Your task to perform on an android device: open app "Speedtest by Ookla" (install if not already installed), go to login, and select forgot password Image 0: 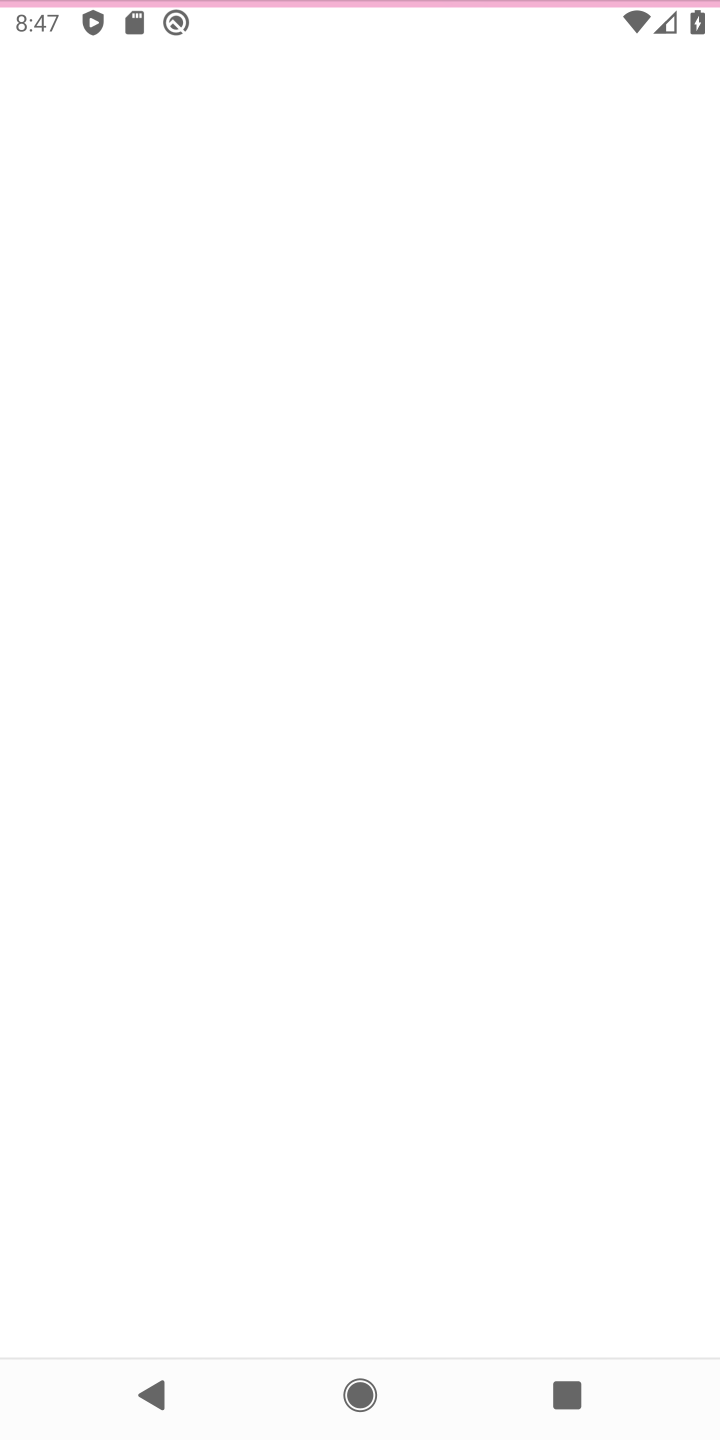
Step 0: press home button
Your task to perform on an android device: open app "Speedtest by Ookla" (install if not already installed), go to login, and select forgot password Image 1: 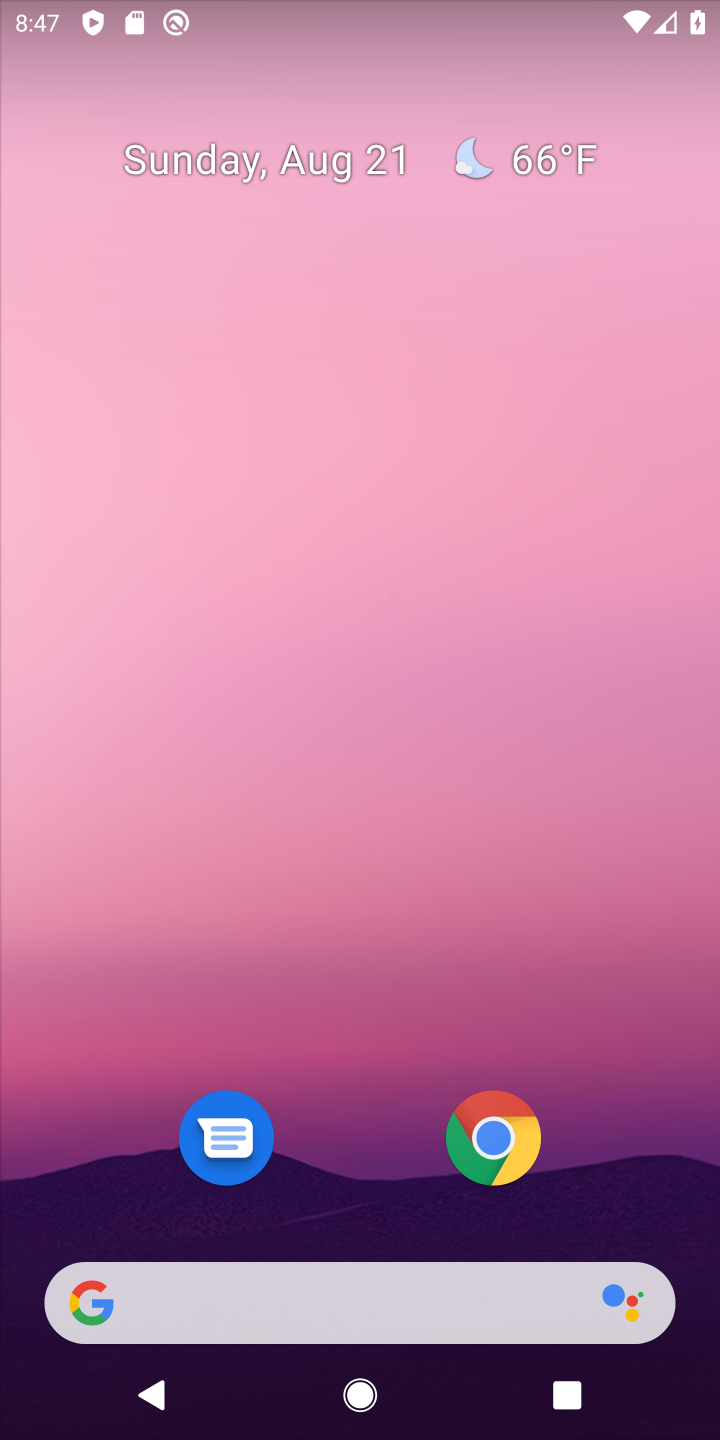
Step 1: drag from (591, 1187) to (611, 138)
Your task to perform on an android device: open app "Speedtest by Ookla" (install if not already installed), go to login, and select forgot password Image 2: 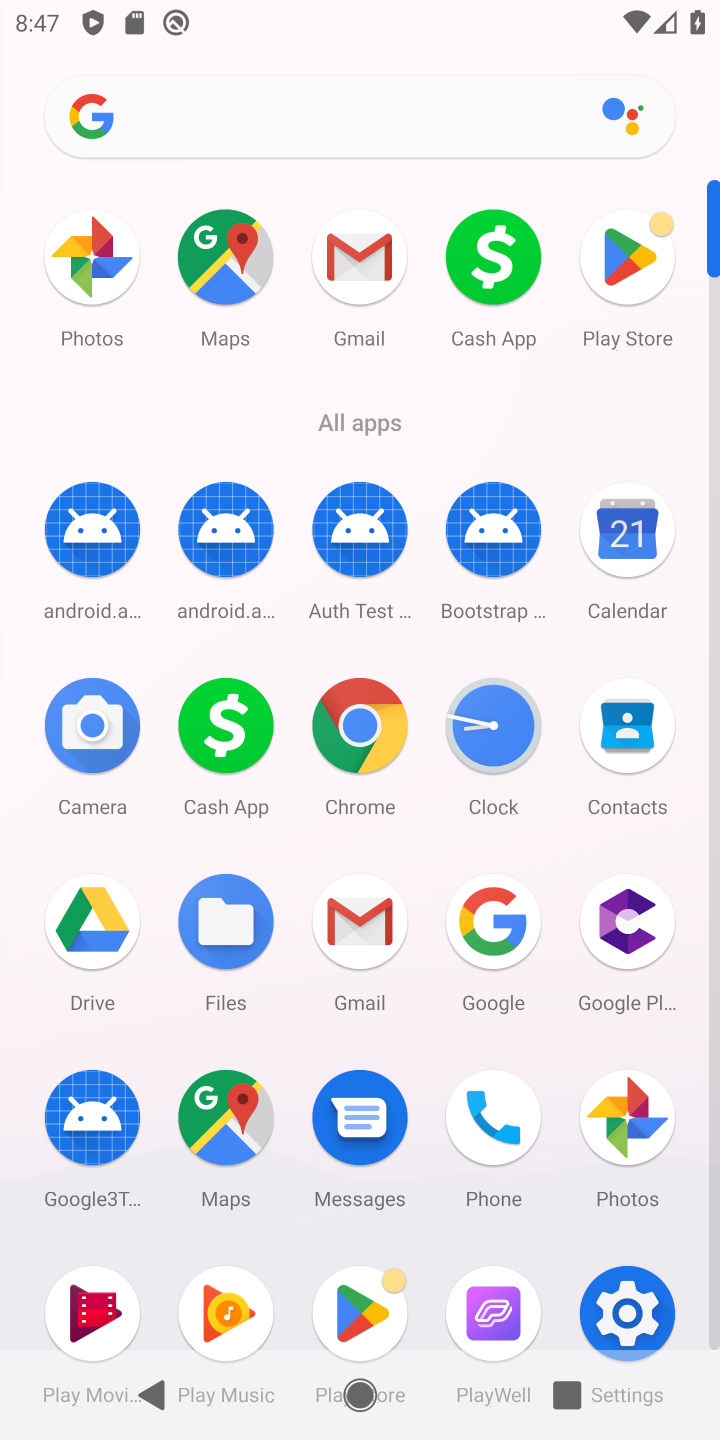
Step 2: click (628, 264)
Your task to perform on an android device: open app "Speedtest by Ookla" (install if not already installed), go to login, and select forgot password Image 3: 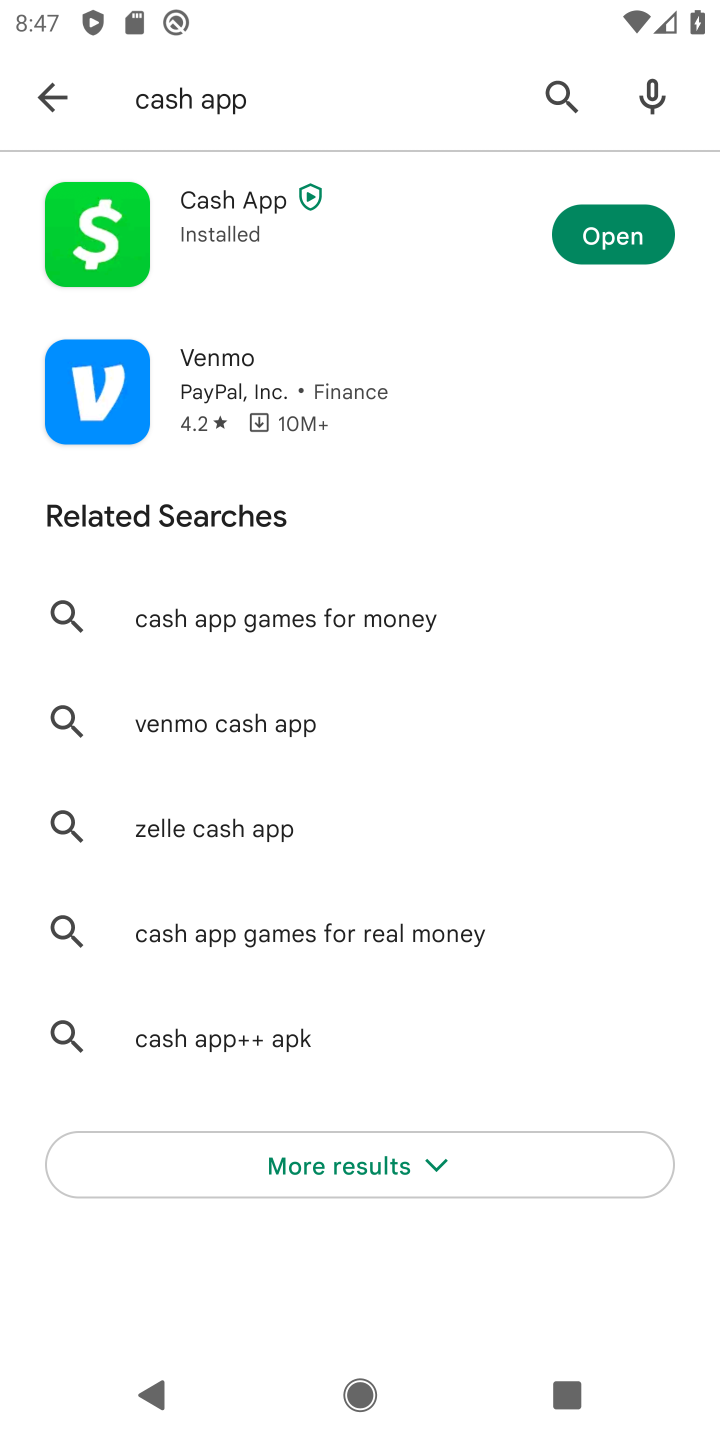
Step 3: press back button
Your task to perform on an android device: open app "Speedtest by Ookla" (install if not already installed), go to login, and select forgot password Image 4: 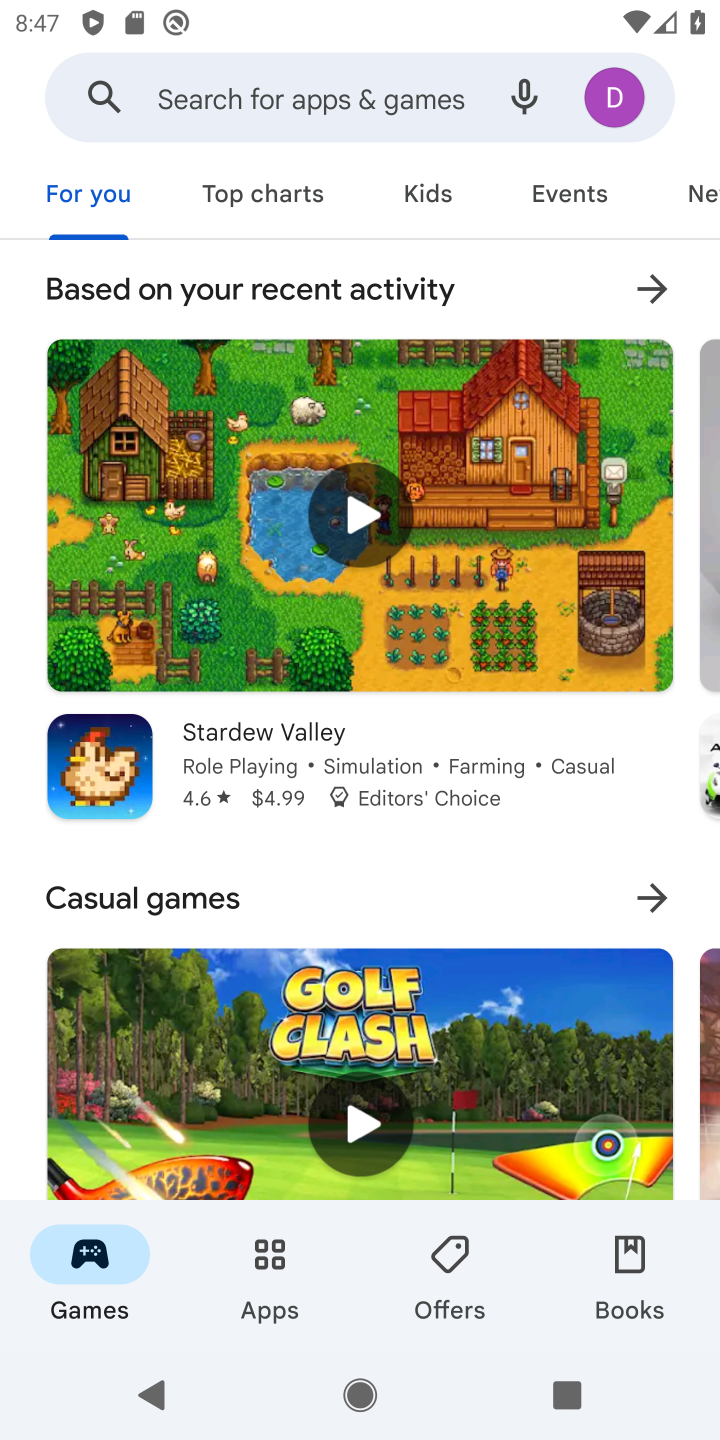
Step 4: click (286, 88)
Your task to perform on an android device: open app "Speedtest by Ookla" (install if not already installed), go to login, and select forgot password Image 5: 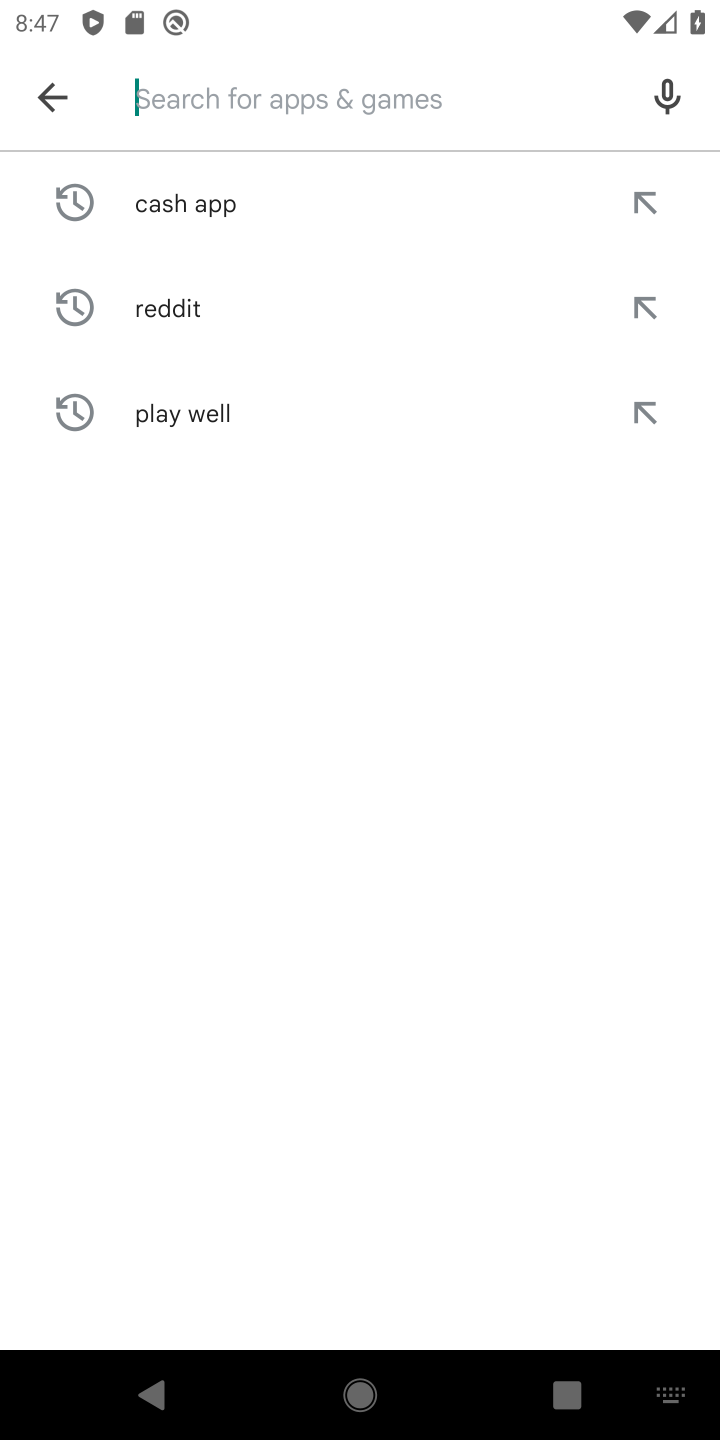
Step 5: press enter
Your task to perform on an android device: open app "Speedtest by Ookla" (install if not already installed), go to login, and select forgot password Image 6: 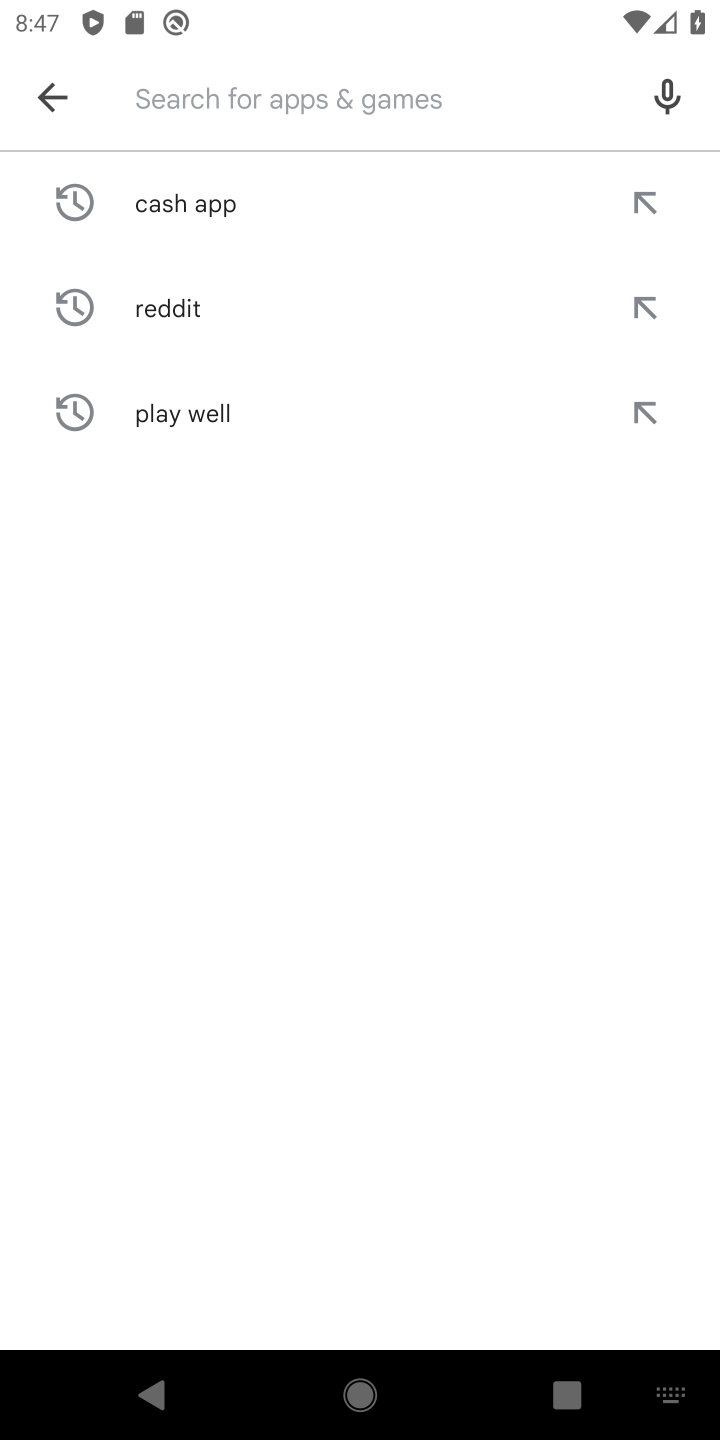
Step 6: type "Speedtest by Ookla"
Your task to perform on an android device: open app "Speedtest by Ookla" (install if not already installed), go to login, and select forgot password Image 7: 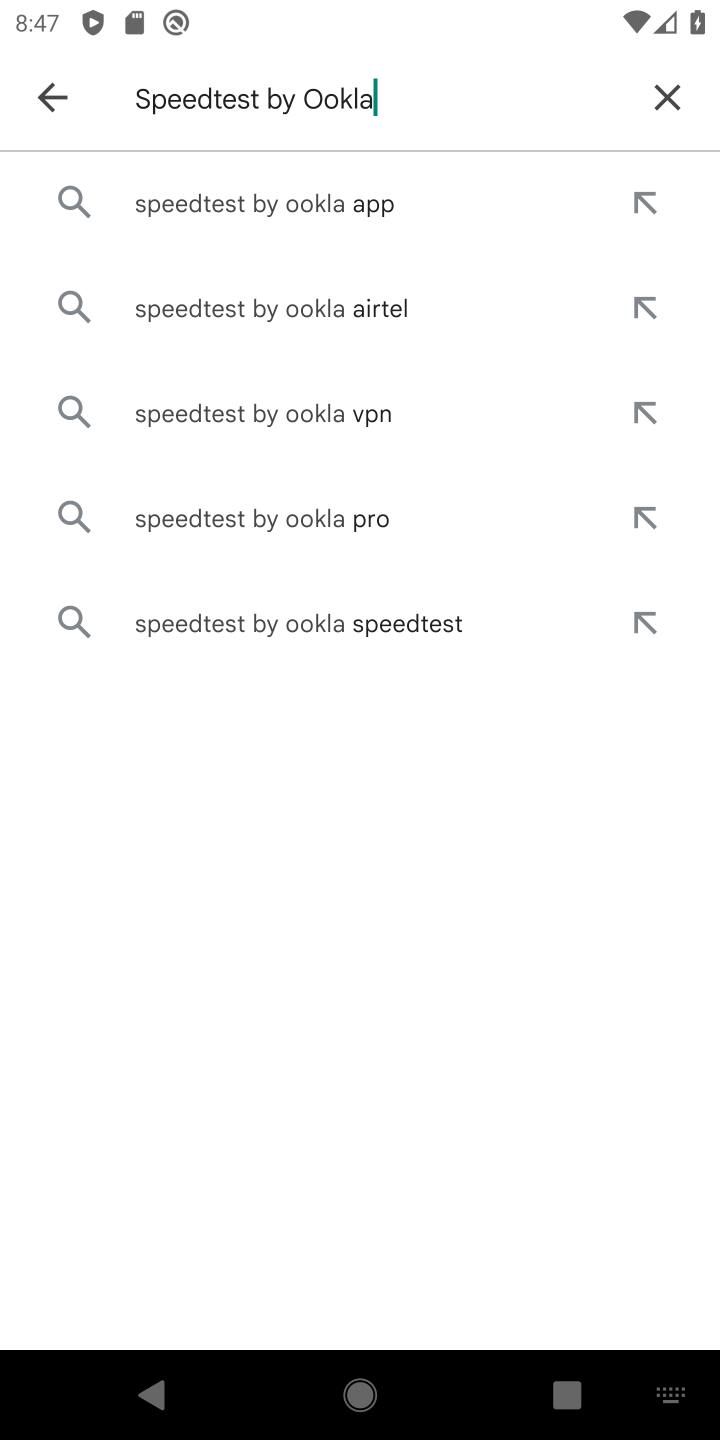
Step 7: click (326, 208)
Your task to perform on an android device: open app "Speedtest by Ookla" (install if not already installed), go to login, and select forgot password Image 8: 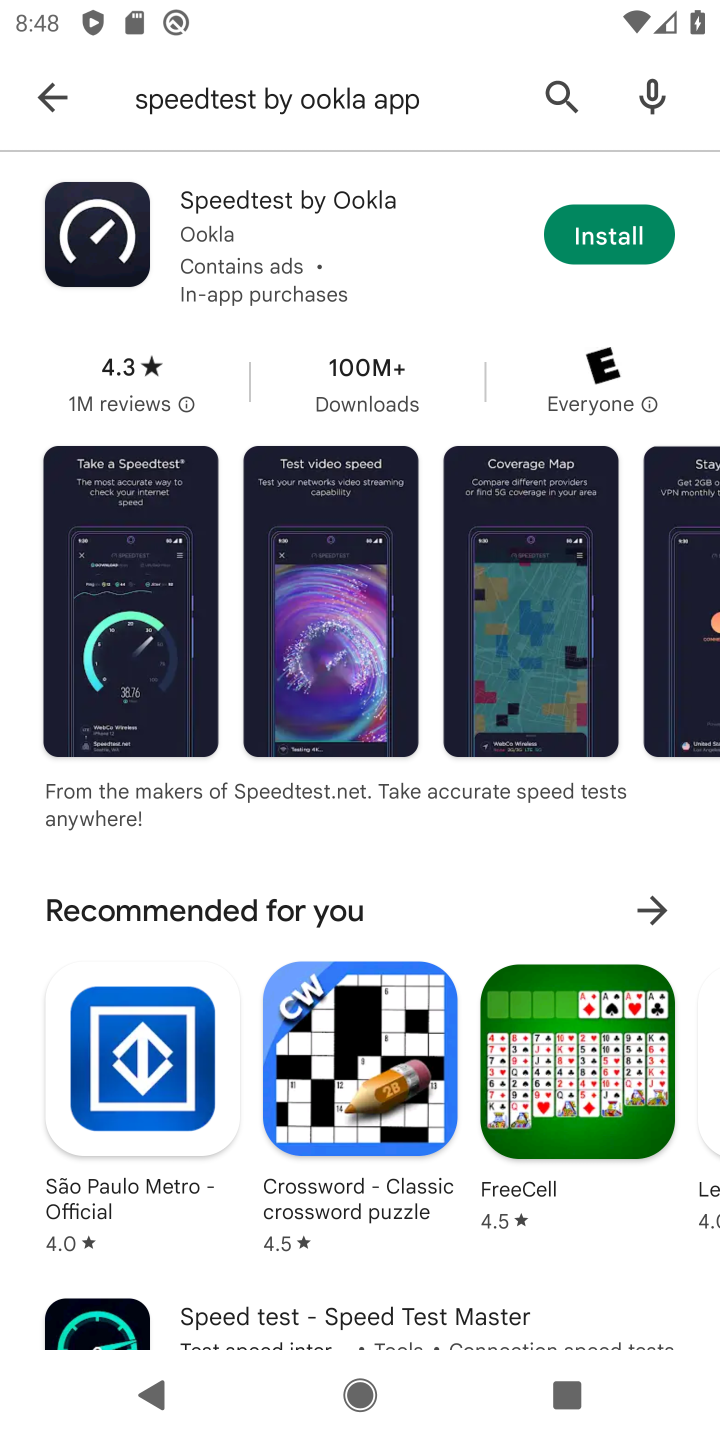
Step 8: click (613, 231)
Your task to perform on an android device: open app "Speedtest by Ookla" (install if not already installed), go to login, and select forgot password Image 9: 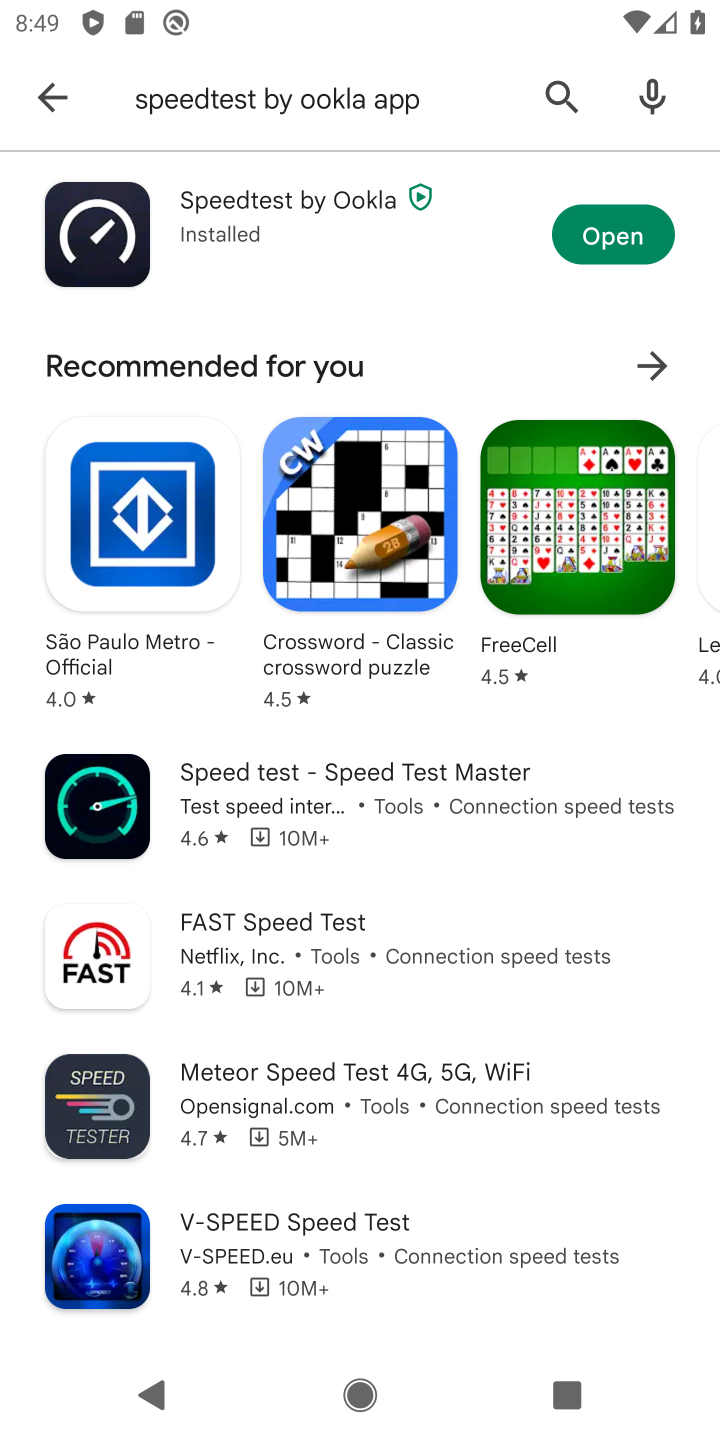
Step 9: click (606, 246)
Your task to perform on an android device: open app "Speedtest by Ookla" (install if not already installed), go to login, and select forgot password Image 10: 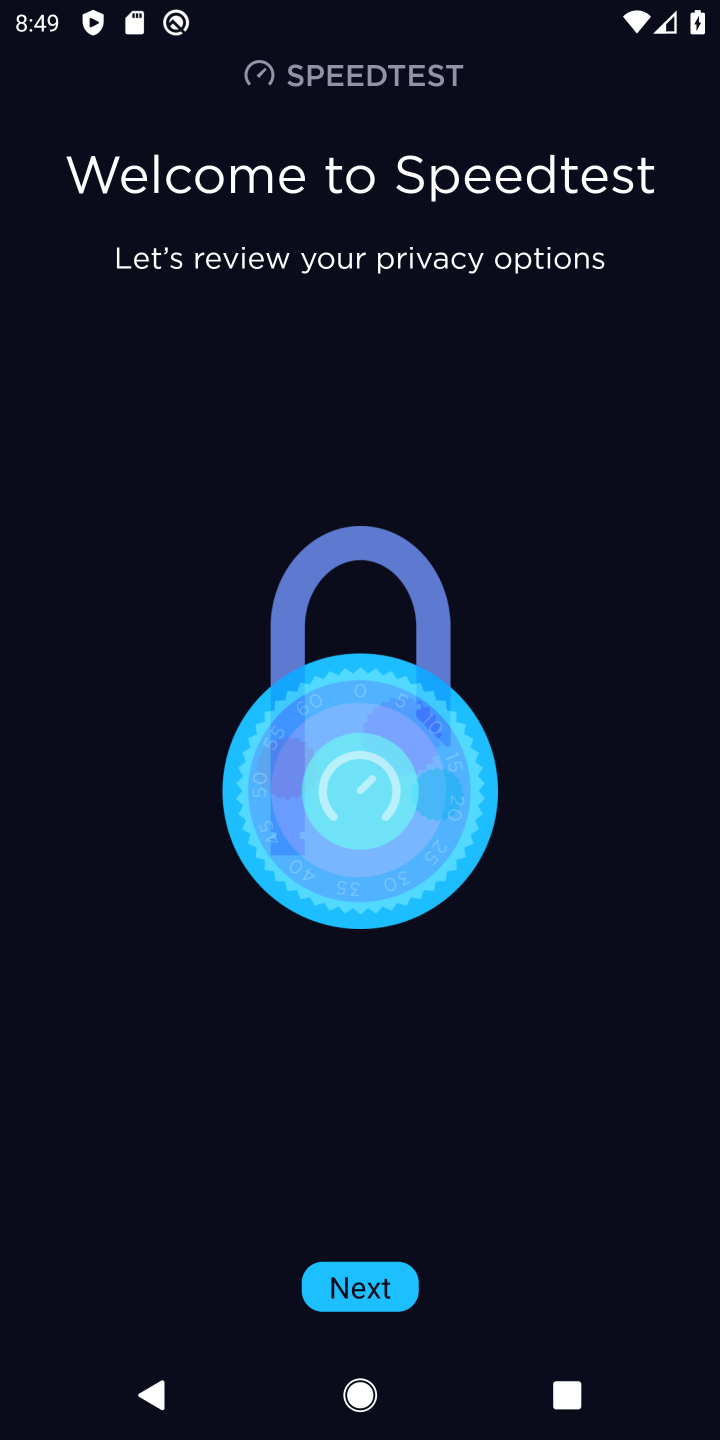
Step 10: click (356, 1290)
Your task to perform on an android device: open app "Speedtest by Ookla" (install if not already installed), go to login, and select forgot password Image 11: 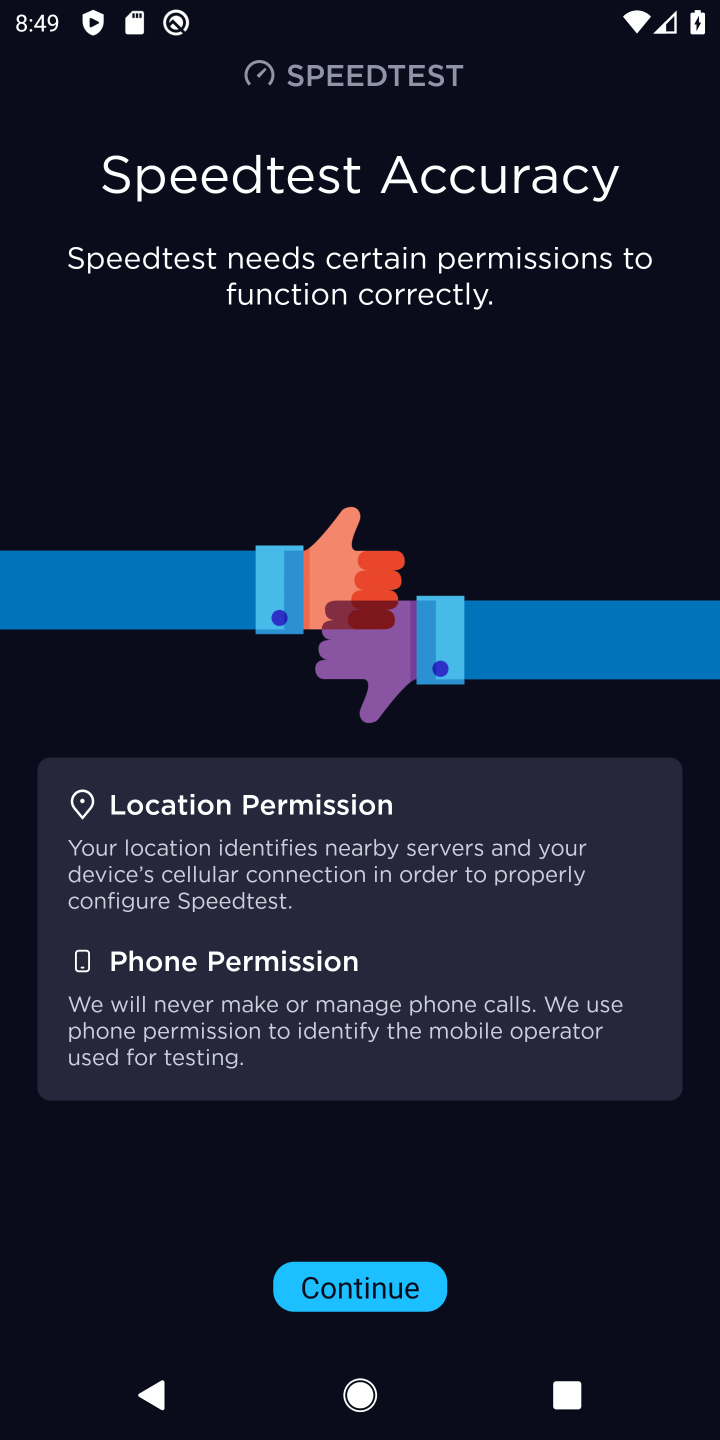
Step 11: click (338, 1291)
Your task to perform on an android device: open app "Speedtest by Ookla" (install if not already installed), go to login, and select forgot password Image 12: 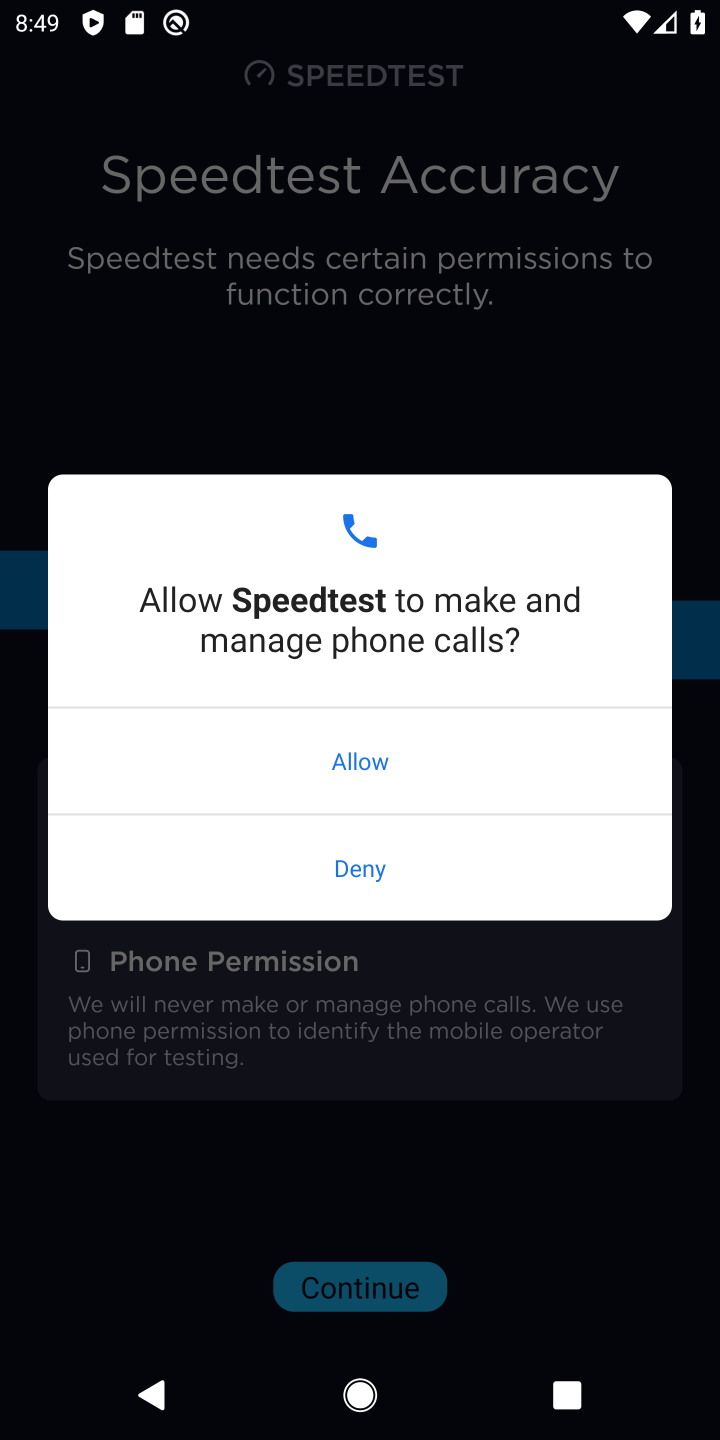
Step 12: click (462, 856)
Your task to perform on an android device: open app "Speedtest by Ookla" (install if not already installed), go to login, and select forgot password Image 13: 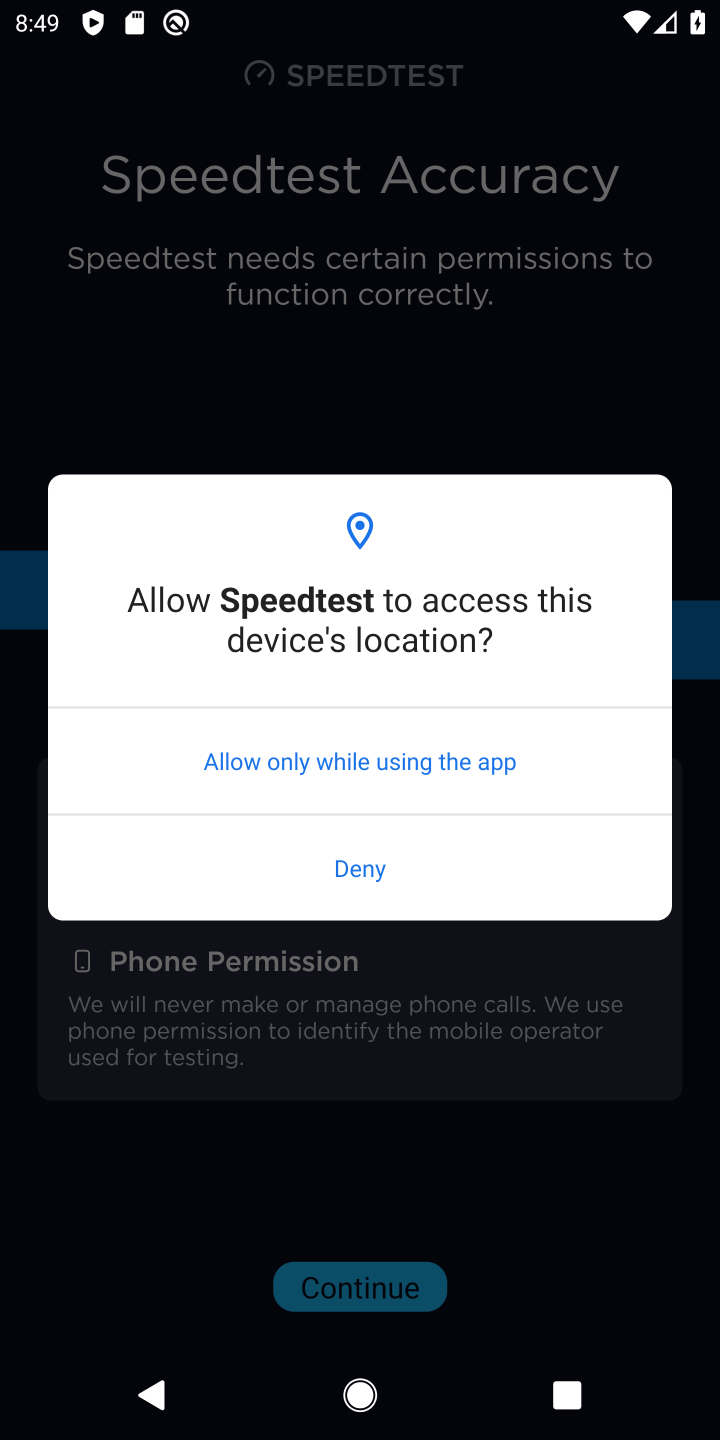
Step 13: click (437, 865)
Your task to perform on an android device: open app "Speedtest by Ookla" (install if not already installed), go to login, and select forgot password Image 14: 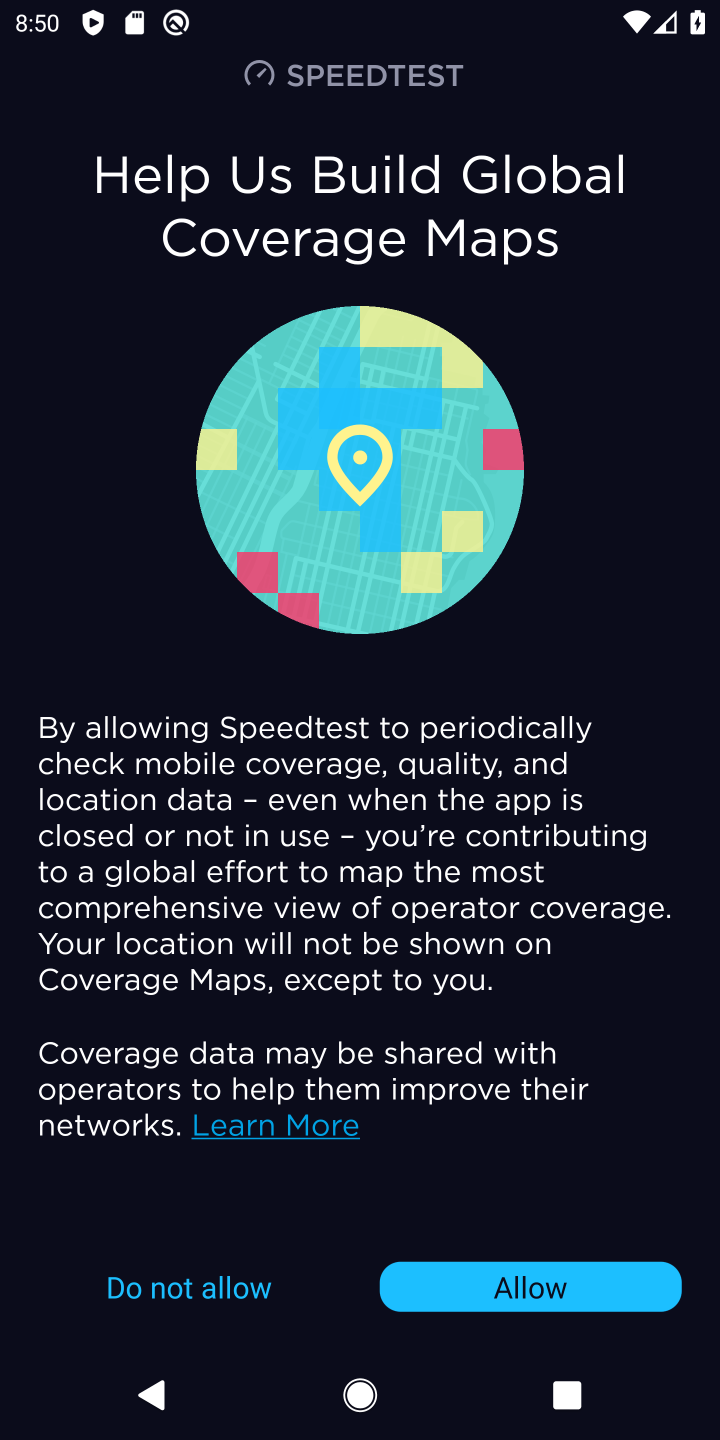
Step 14: click (214, 1299)
Your task to perform on an android device: open app "Speedtest by Ookla" (install if not already installed), go to login, and select forgot password Image 15: 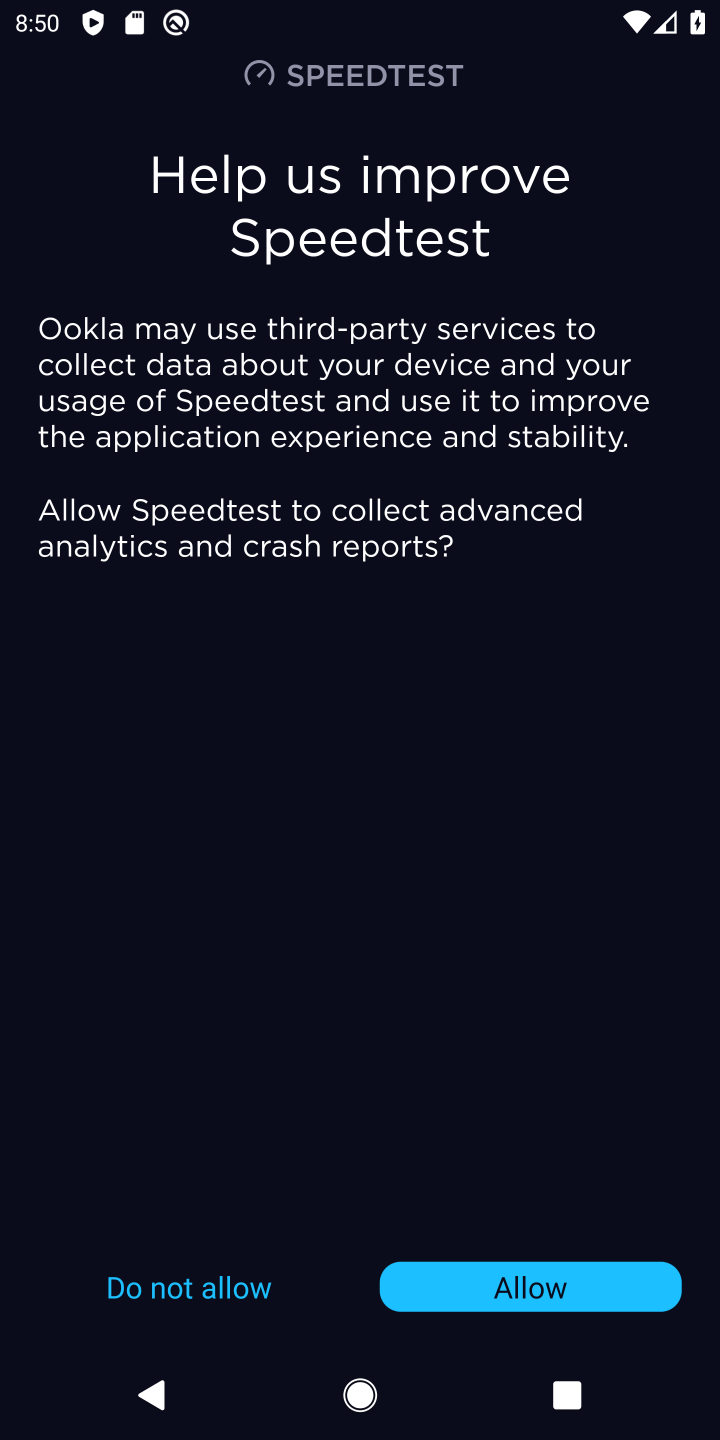
Step 15: click (166, 1292)
Your task to perform on an android device: open app "Speedtest by Ookla" (install if not already installed), go to login, and select forgot password Image 16: 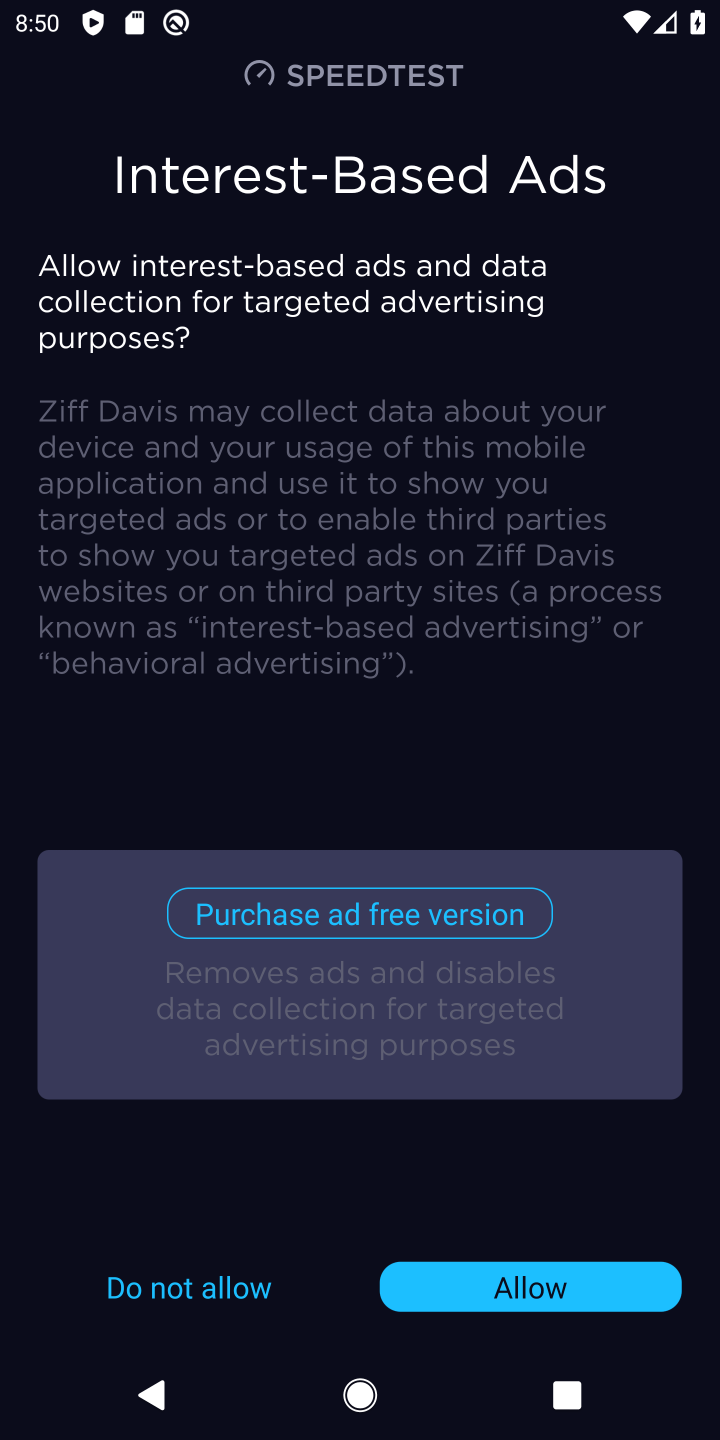
Step 16: click (436, 919)
Your task to perform on an android device: open app "Speedtest by Ookla" (install if not already installed), go to login, and select forgot password Image 17: 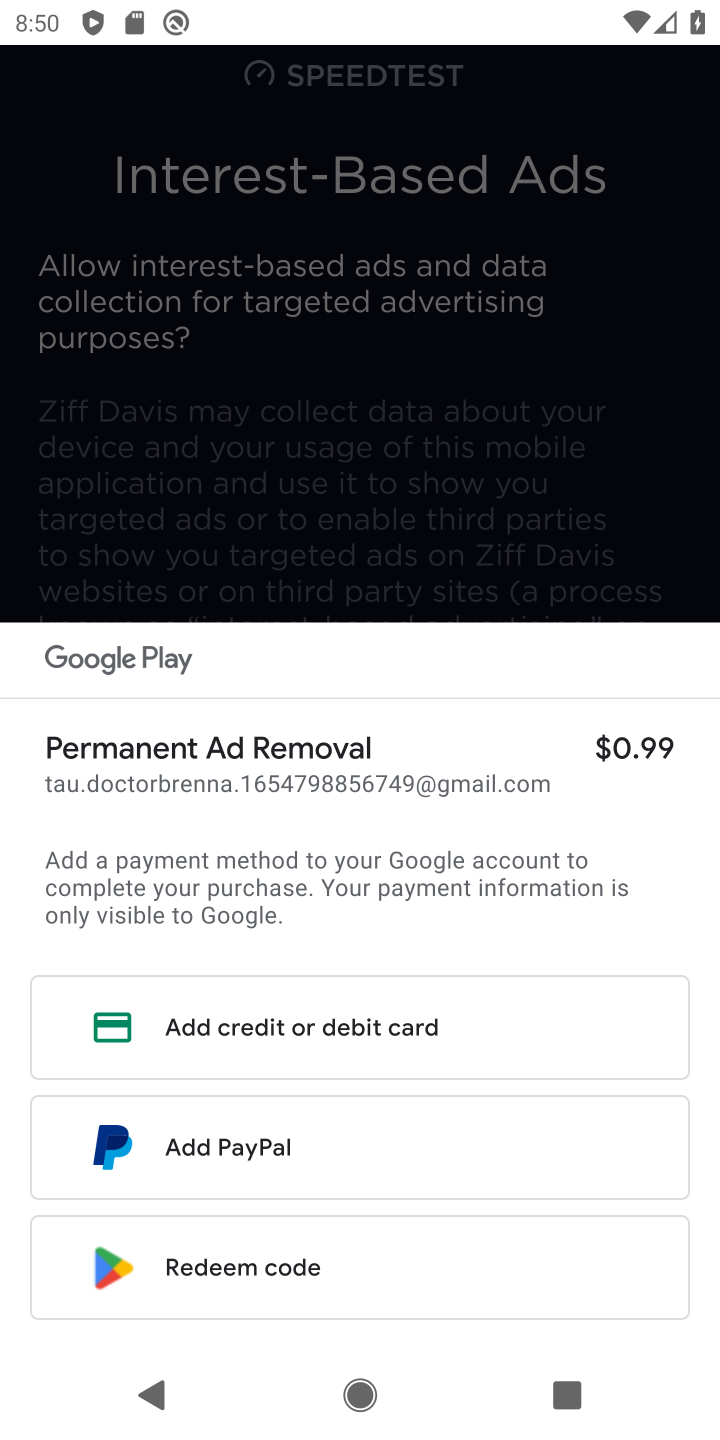
Step 17: task complete